Your task to perform on an android device: When is my next appointment? Image 0: 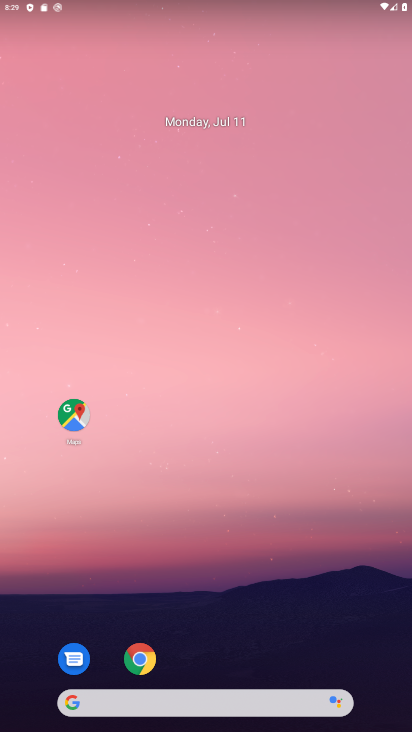
Step 0: drag from (27, 701) to (251, 63)
Your task to perform on an android device: When is my next appointment? Image 1: 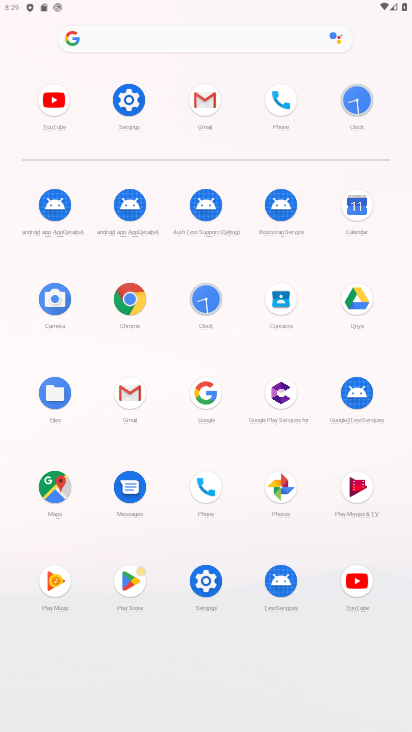
Step 1: click (356, 212)
Your task to perform on an android device: When is my next appointment? Image 2: 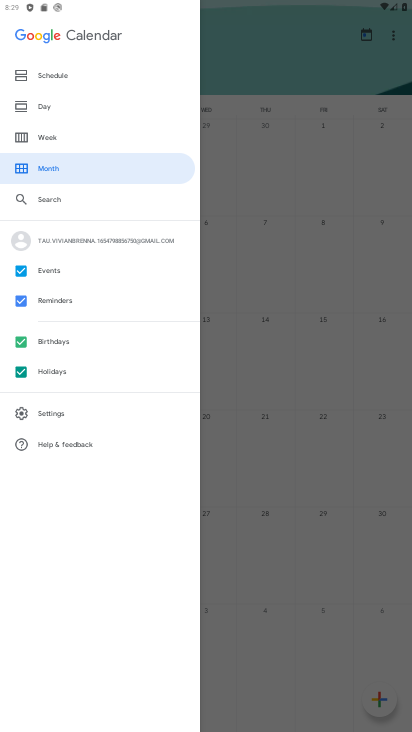
Step 2: click (283, 51)
Your task to perform on an android device: When is my next appointment? Image 3: 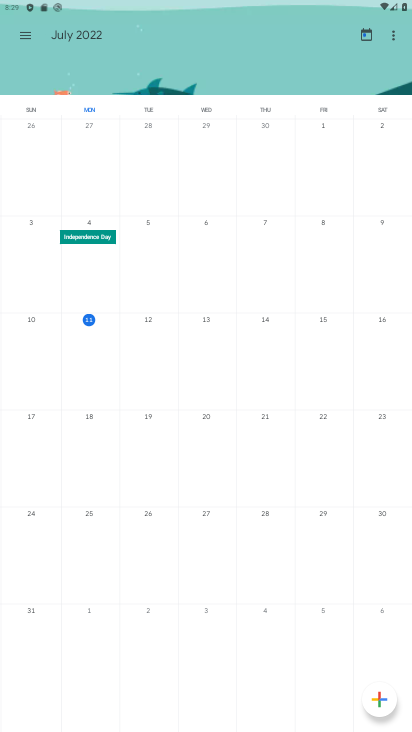
Step 3: click (26, 30)
Your task to perform on an android device: When is my next appointment? Image 4: 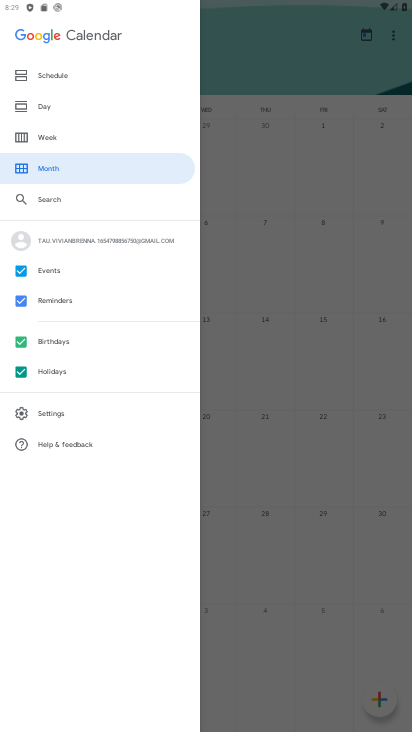
Step 4: click (295, 41)
Your task to perform on an android device: When is my next appointment? Image 5: 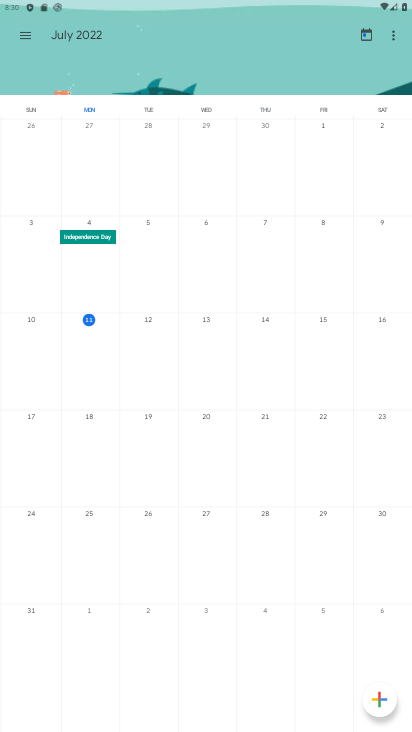
Step 5: task complete